Your task to perform on an android device: change timer sound Image 0: 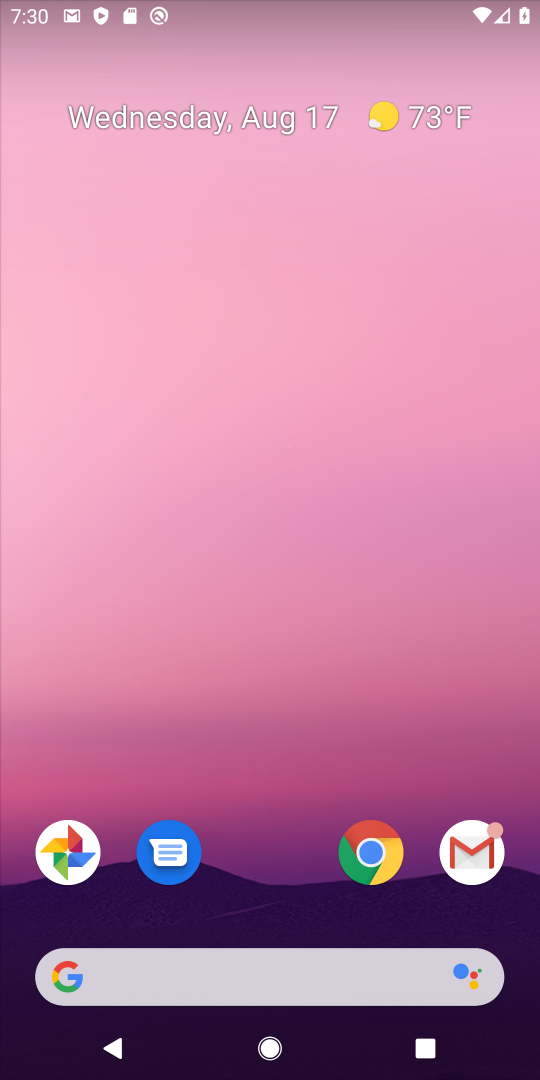
Step 0: drag from (265, 849) to (272, 188)
Your task to perform on an android device: change timer sound Image 1: 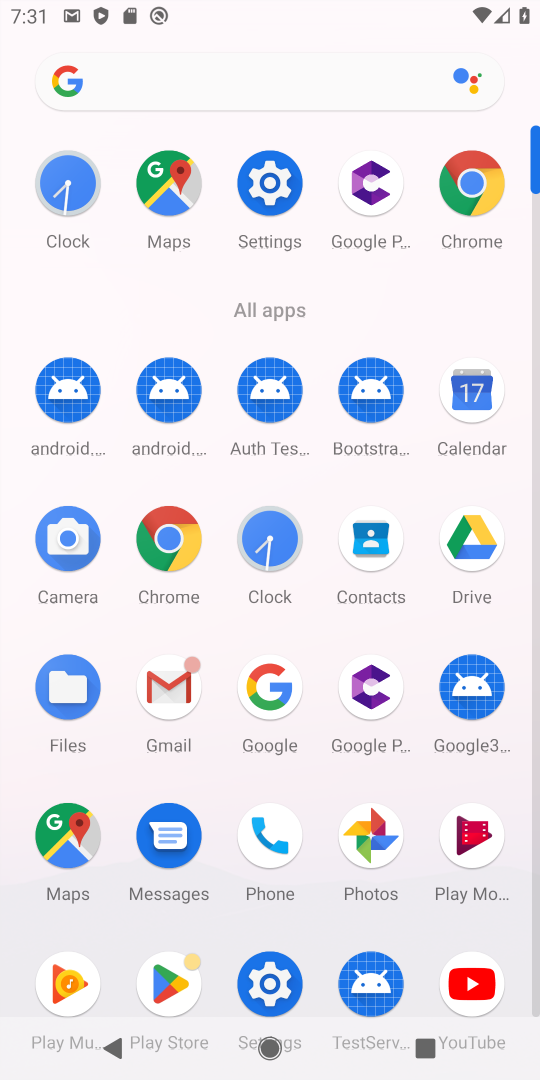
Step 1: click (267, 545)
Your task to perform on an android device: change timer sound Image 2: 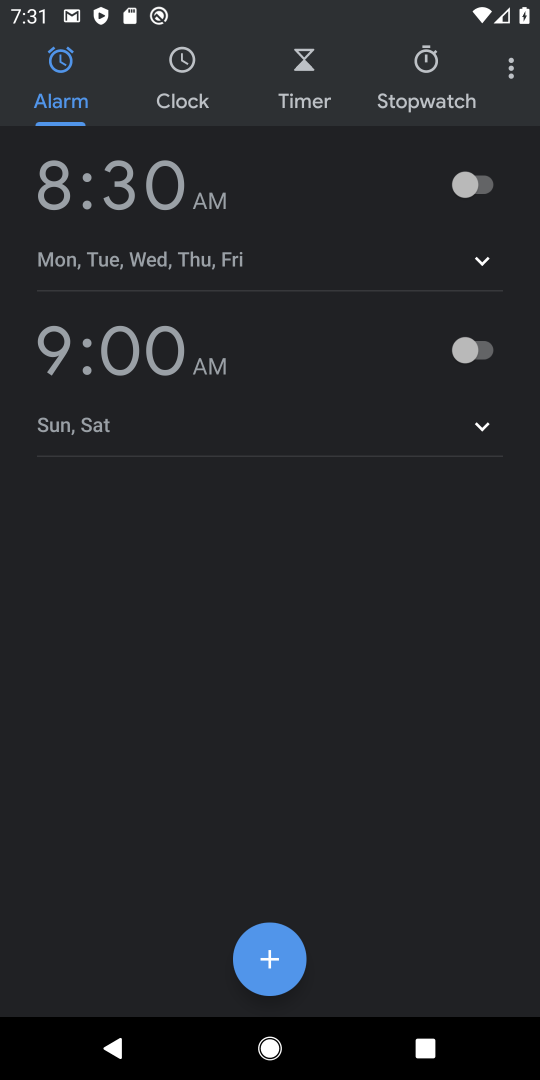
Step 2: click (511, 74)
Your task to perform on an android device: change timer sound Image 3: 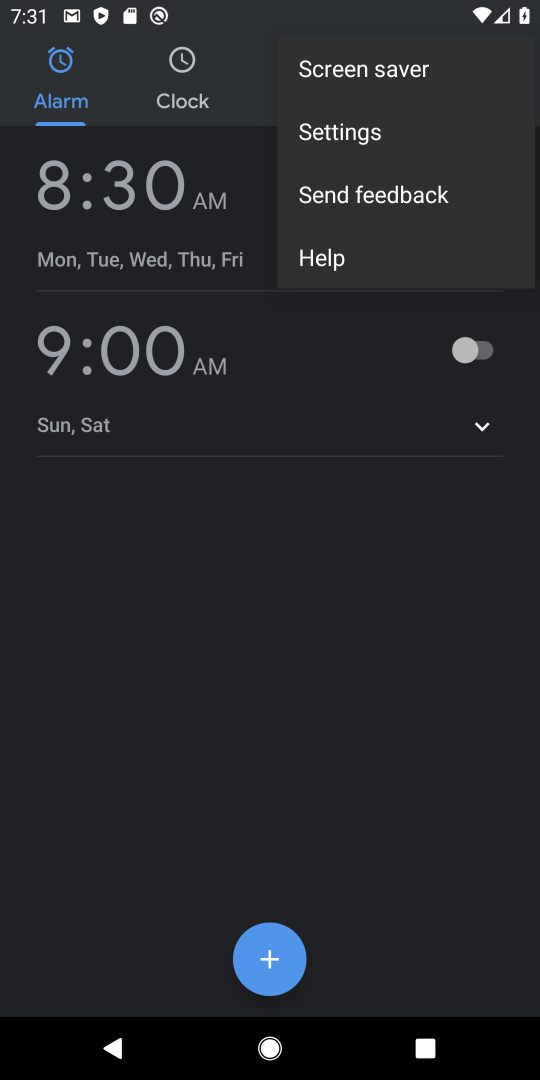
Step 3: click (349, 132)
Your task to perform on an android device: change timer sound Image 4: 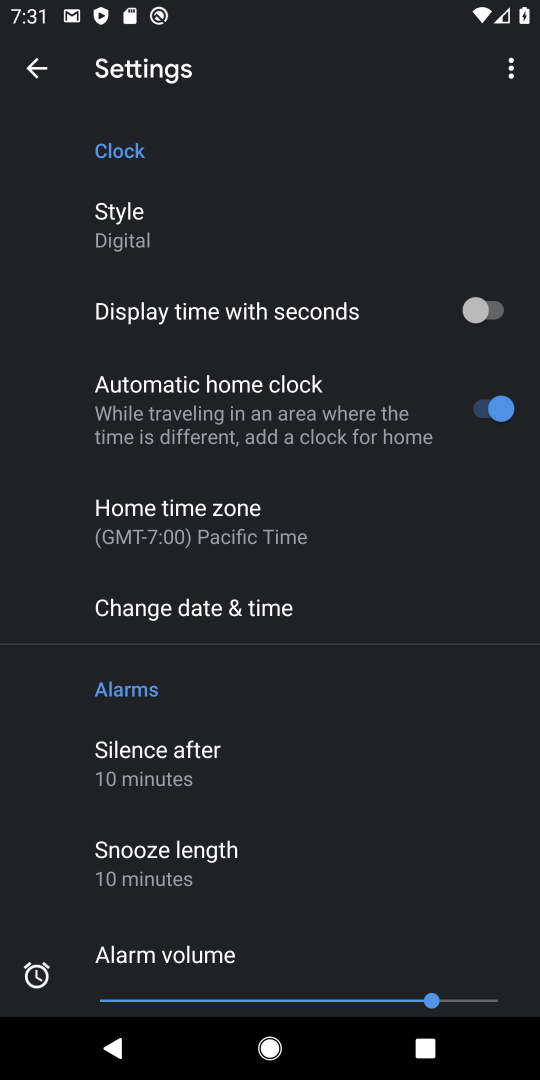
Step 4: drag from (293, 914) to (289, 304)
Your task to perform on an android device: change timer sound Image 5: 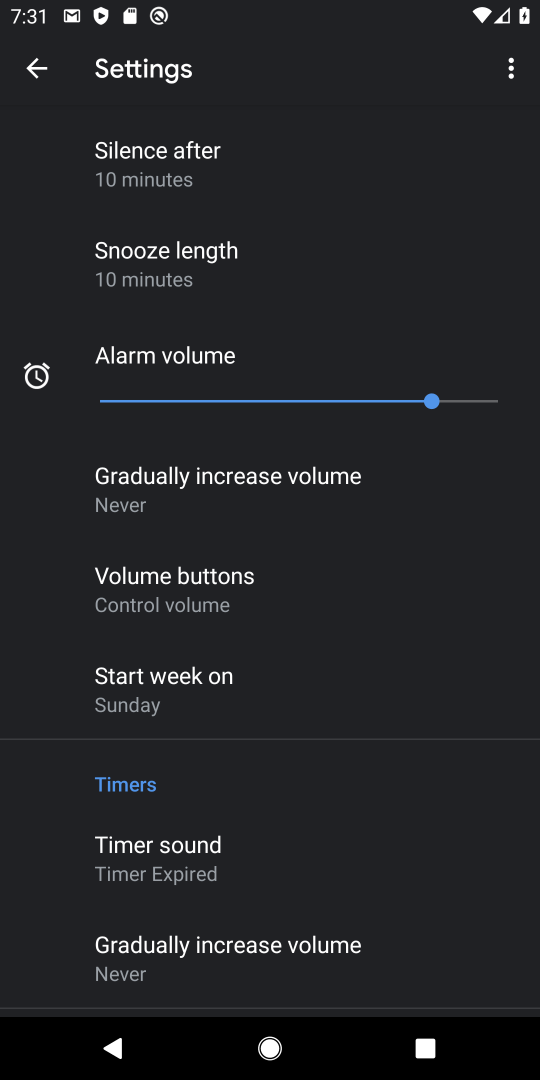
Step 5: click (148, 840)
Your task to perform on an android device: change timer sound Image 6: 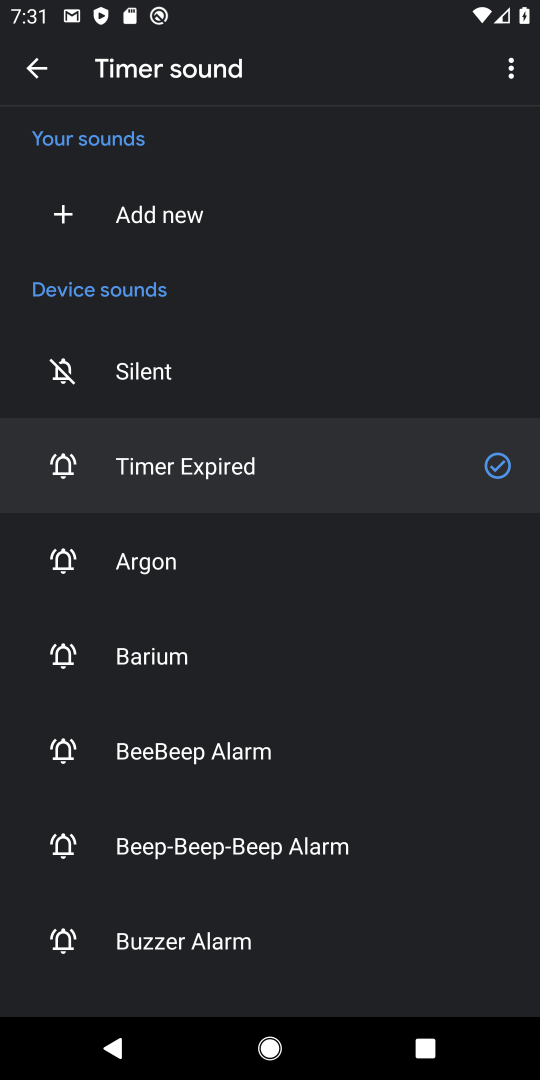
Step 6: click (143, 557)
Your task to perform on an android device: change timer sound Image 7: 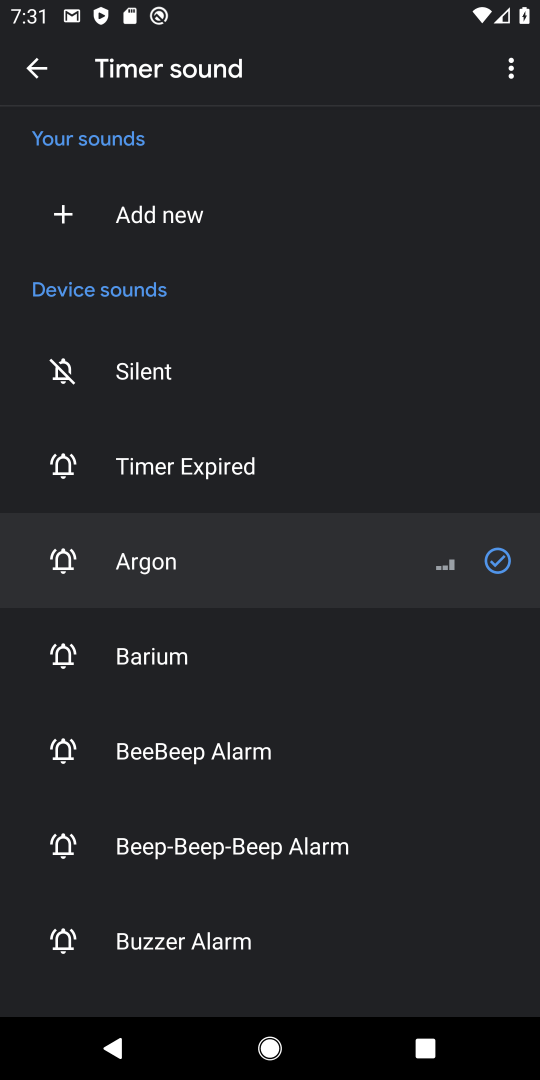
Step 7: task complete